Your task to perform on an android device: Find coffee shops on Maps Image 0: 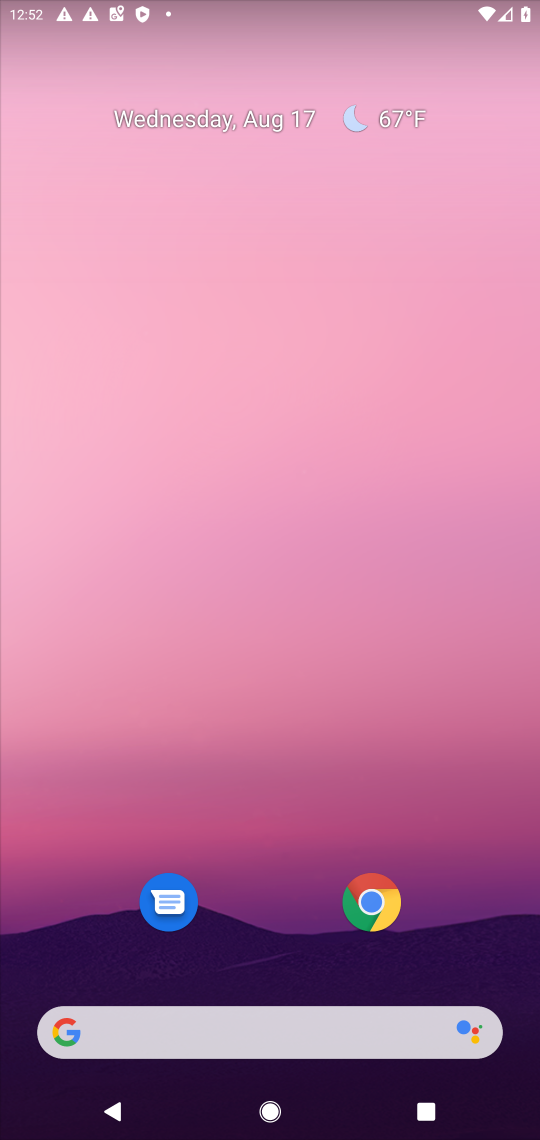
Step 0: drag from (259, 876) to (431, 10)
Your task to perform on an android device: Find coffee shops on Maps Image 1: 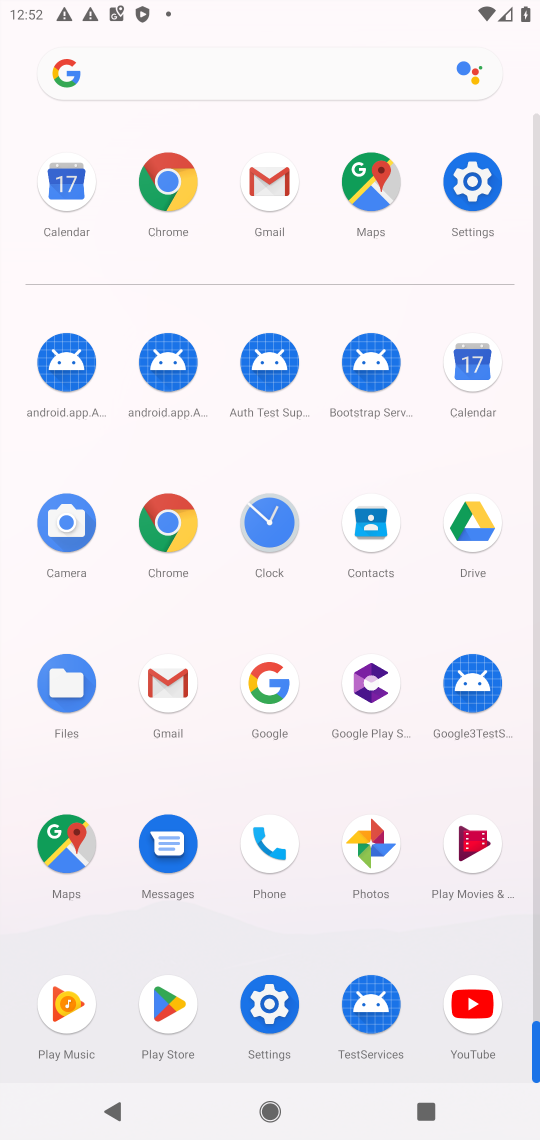
Step 1: click (70, 849)
Your task to perform on an android device: Find coffee shops on Maps Image 2: 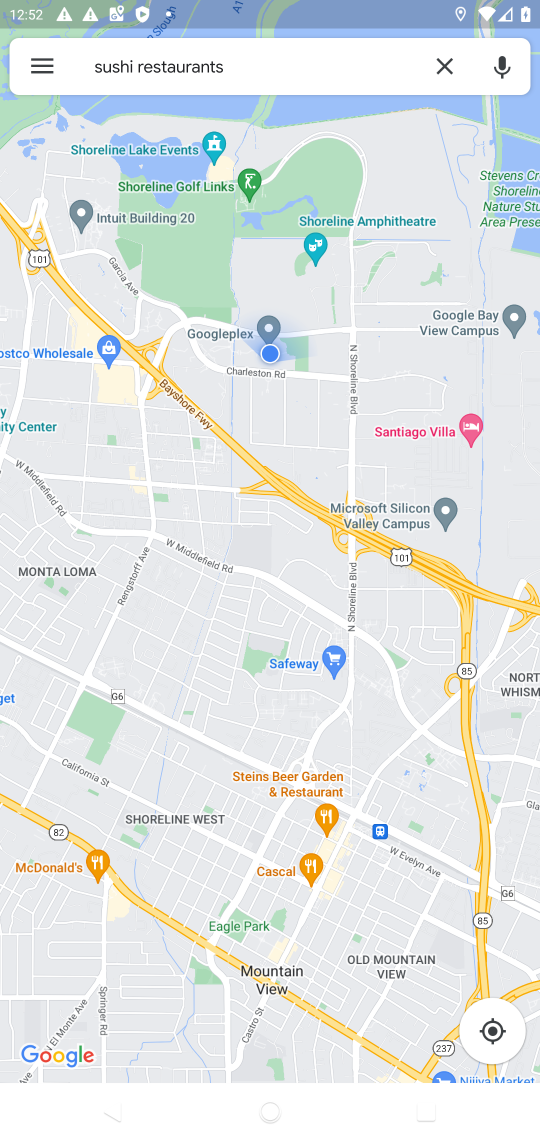
Step 2: click (230, 73)
Your task to perform on an android device: Find coffee shops on Maps Image 3: 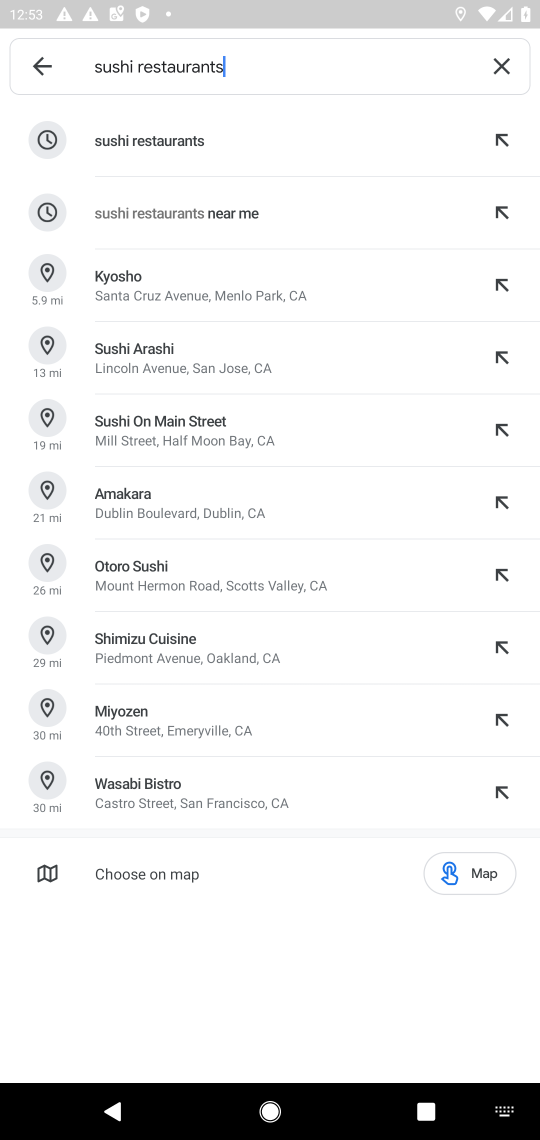
Step 3: click (493, 60)
Your task to perform on an android device: Find coffee shops on Maps Image 4: 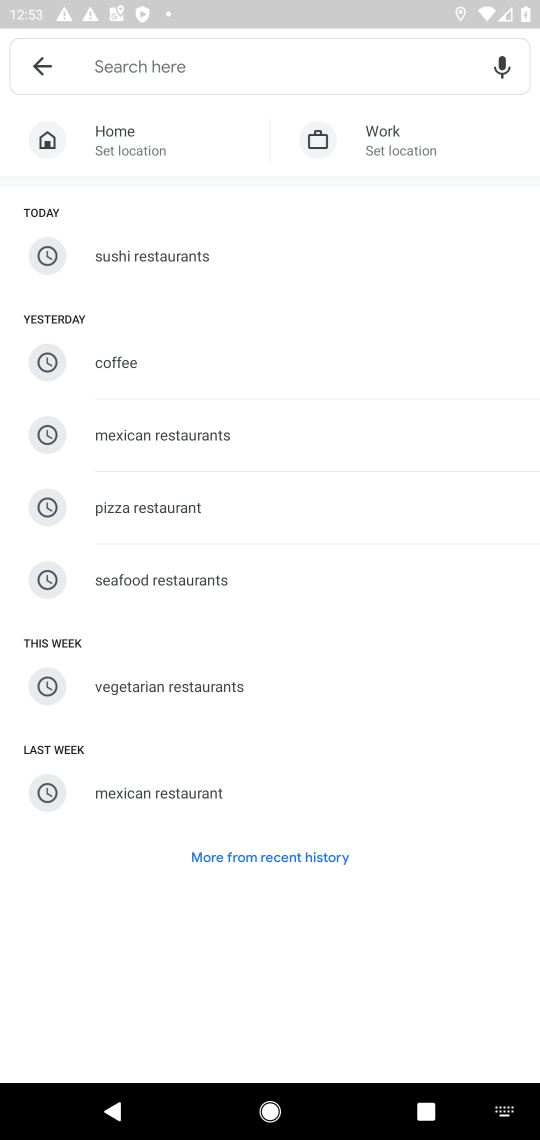
Step 4: type "coffee shops"
Your task to perform on an android device: Find coffee shops on Maps Image 5: 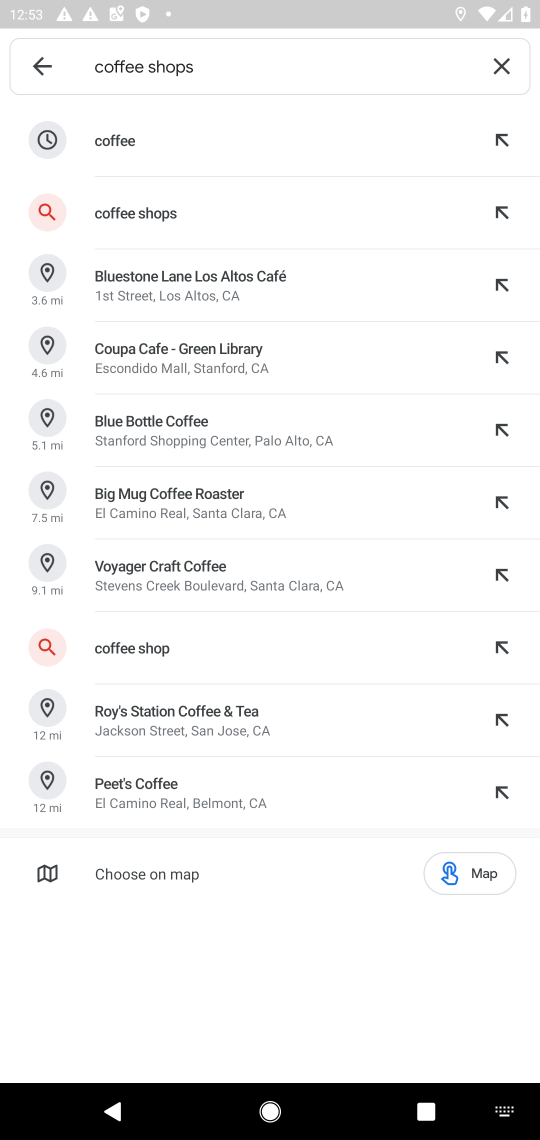
Step 5: click (188, 199)
Your task to perform on an android device: Find coffee shops on Maps Image 6: 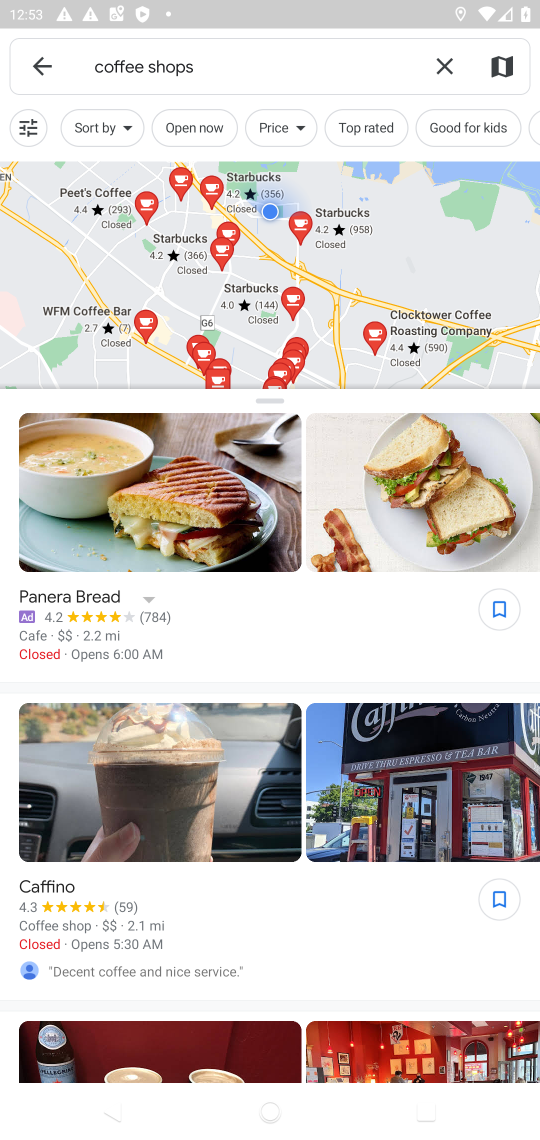
Step 6: task complete